Your task to perform on an android device: change your default location settings in chrome Image 0: 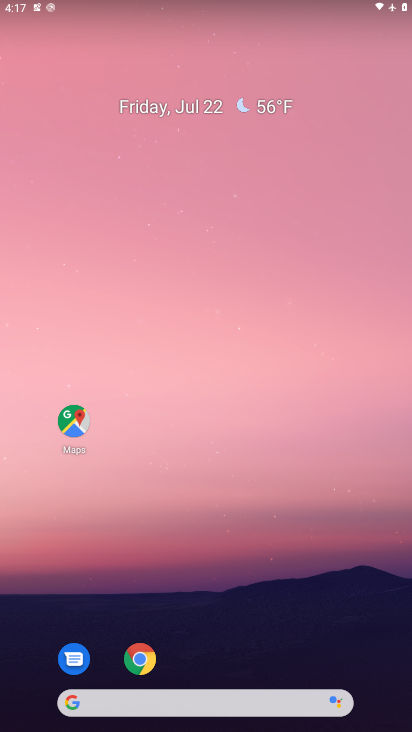
Step 0: drag from (172, 669) to (203, 225)
Your task to perform on an android device: change your default location settings in chrome Image 1: 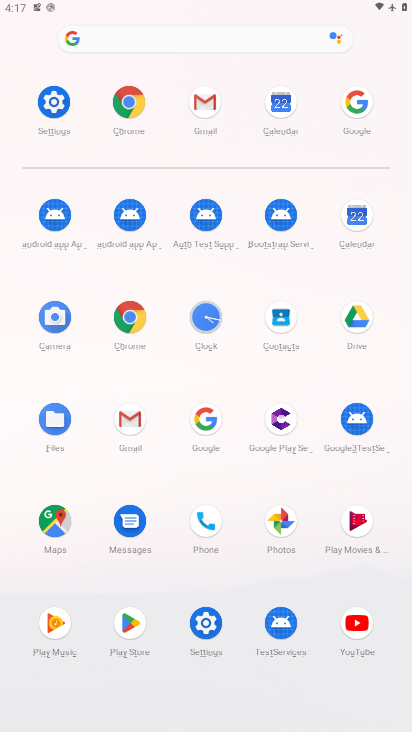
Step 1: click (122, 311)
Your task to perform on an android device: change your default location settings in chrome Image 2: 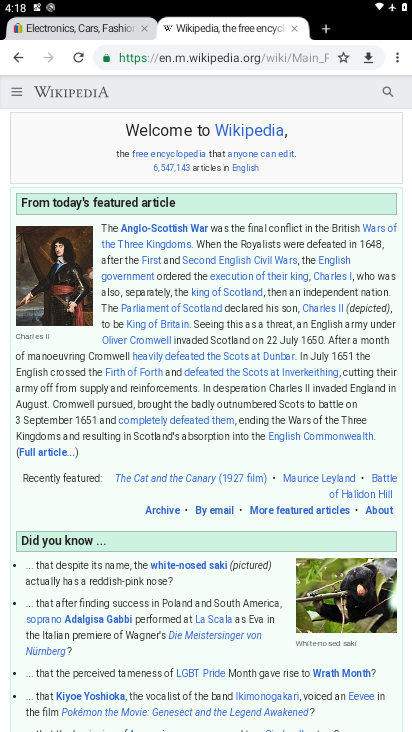
Step 2: click (390, 53)
Your task to perform on an android device: change your default location settings in chrome Image 3: 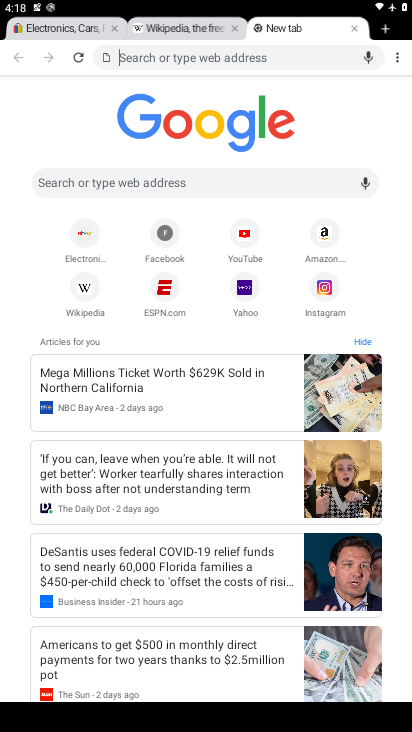
Step 3: click (392, 59)
Your task to perform on an android device: change your default location settings in chrome Image 4: 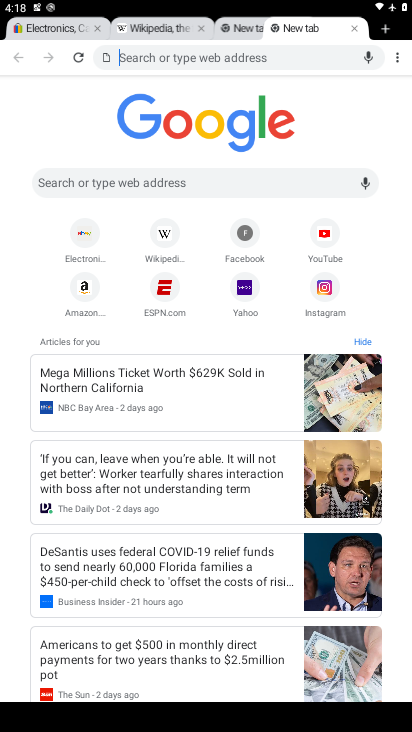
Step 4: click (395, 58)
Your task to perform on an android device: change your default location settings in chrome Image 5: 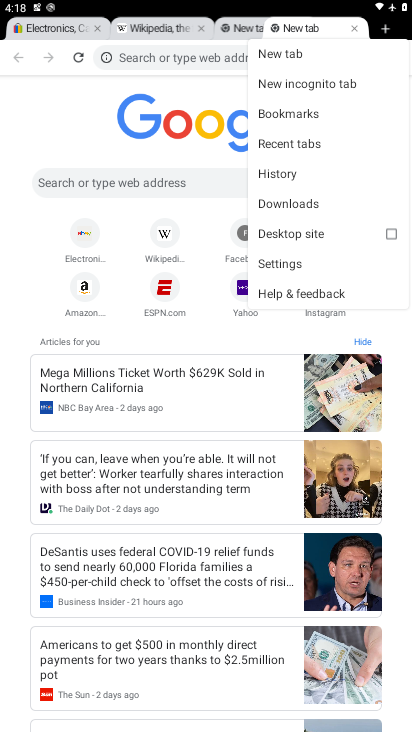
Step 5: click (290, 257)
Your task to perform on an android device: change your default location settings in chrome Image 6: 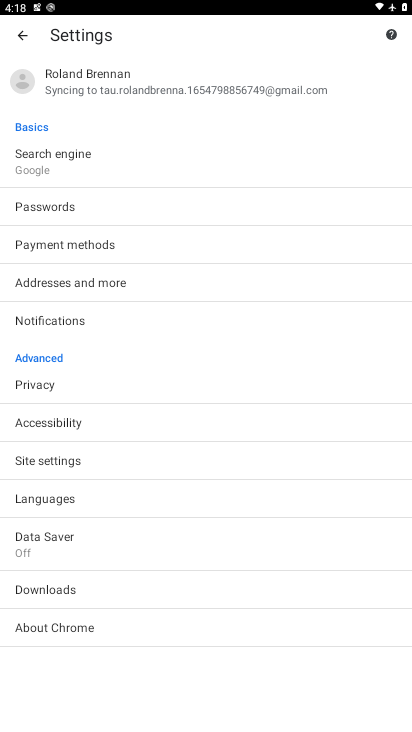
Step 6: click (63, 458)
Your task to perform on an android device: change your default location settings in chrome Image 7: 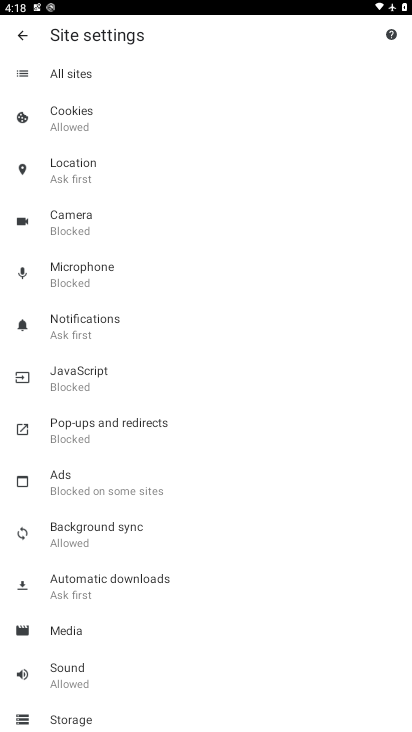
Step 7: click (83, 165)
Your task to perform on an android device: change your default location settings in chrome Image 8: 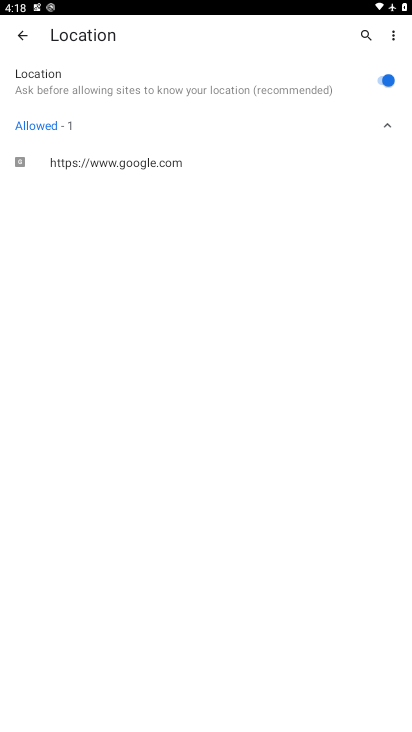
Step 8: click (379, 78)
Your task to perform on an android device: change your default location settings in chrome Image 9: 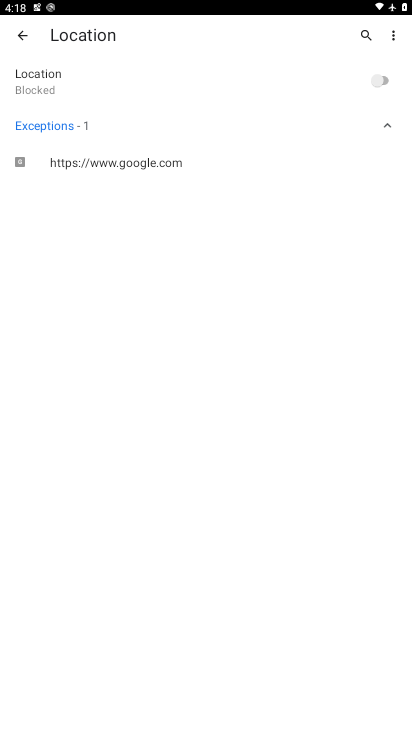
Step 9: task complete